Your task to perform on an android device: Turn off the flashlight Image 0: 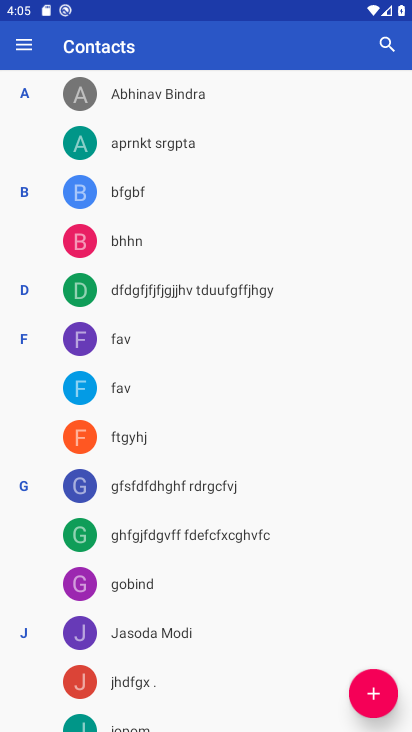
Step 0: press back button
Your task to perform on an android device: Turn off the flashlight Image 1: 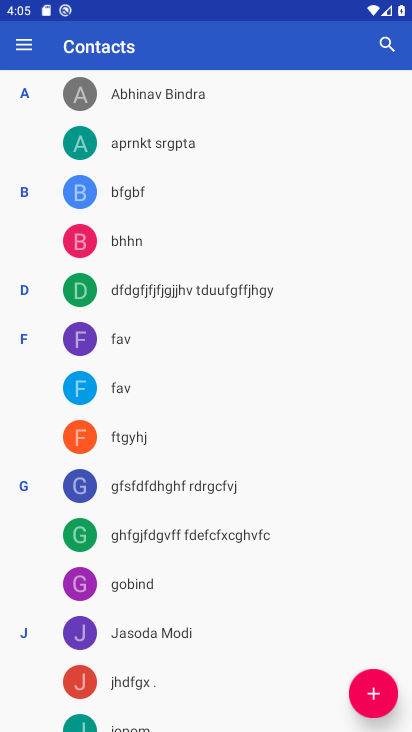
Step 1: task complete